Your task to perform on an android device: change alarm snooze length Image 0: 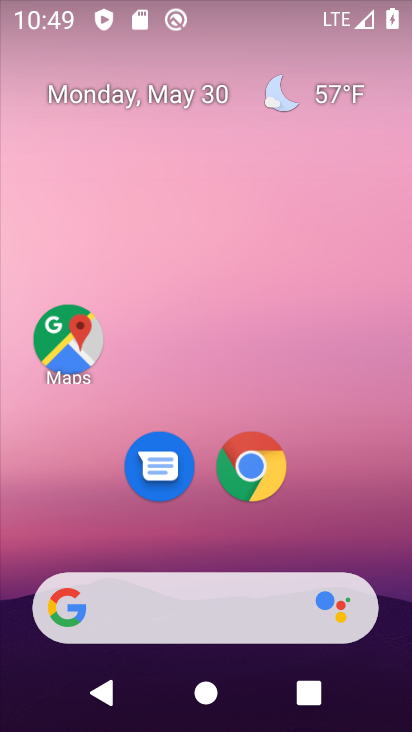
Step 0: drag from (348, 522) to (347, 10)
Your task to perform on an android device: change alarm snooze length Image 1: 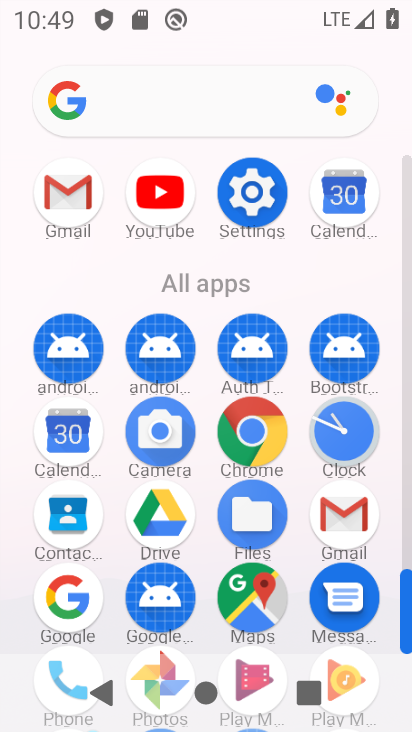
Step 1: click (350, 421)
Your task to perform on an android device: change alarm snooze length Image 2: 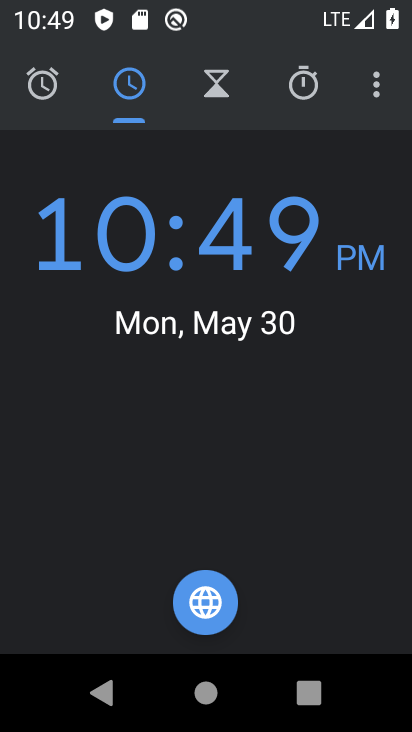
Step 2: drag from (378, 72) to (355, 114)
Your task to perform on an android device: change alarm snooze length Image 3: 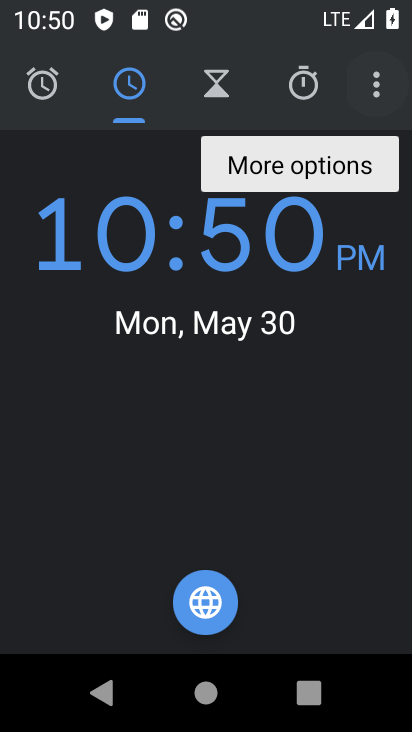
Step 3: click (368, 93)
Your task to perform on an android device: change alarm snooze length Image 4: 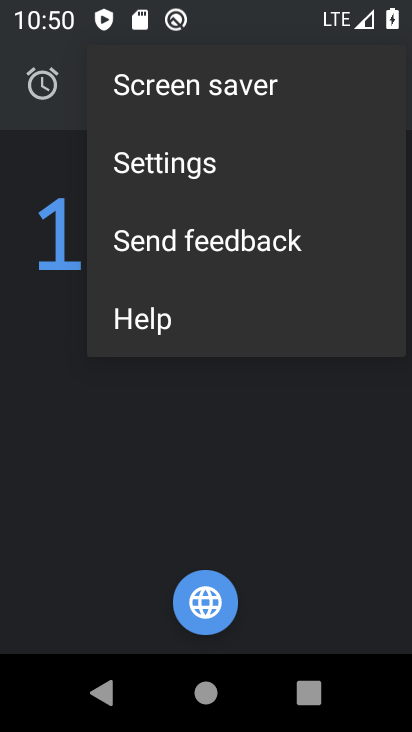
Step 4: click (204, 168)
Your task to perform on an android device: change alarm snooze length Image 5: 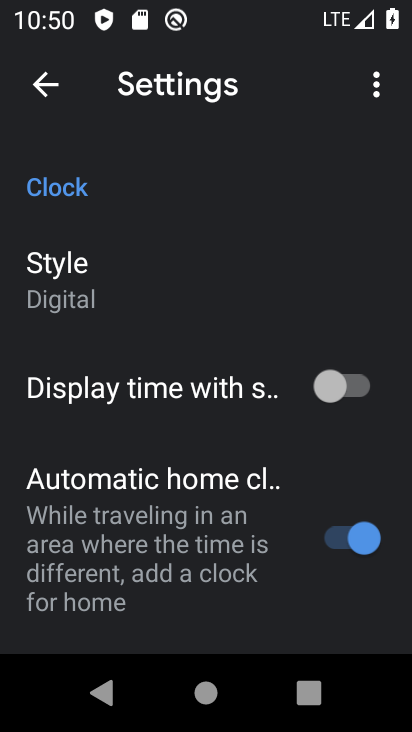
Step 5: drag from (223, 575) to (229, 104)
Your task to perform on an android device: change alarm snooze length Image 6: 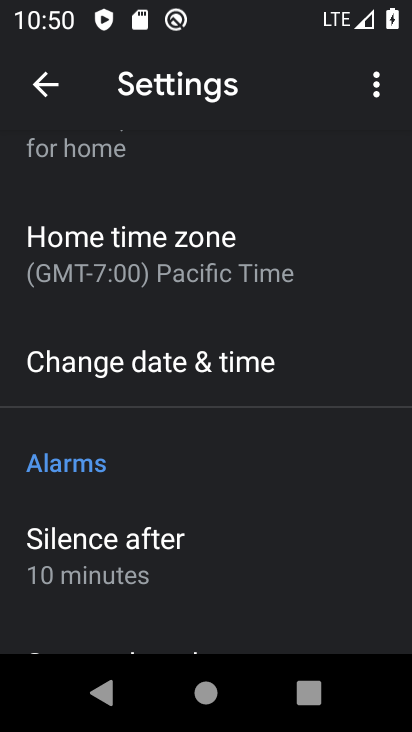
Step 6: drag from (314, 586) to (311, 207)
Your task to perform on an android device: change alarm snooze length Image 7: 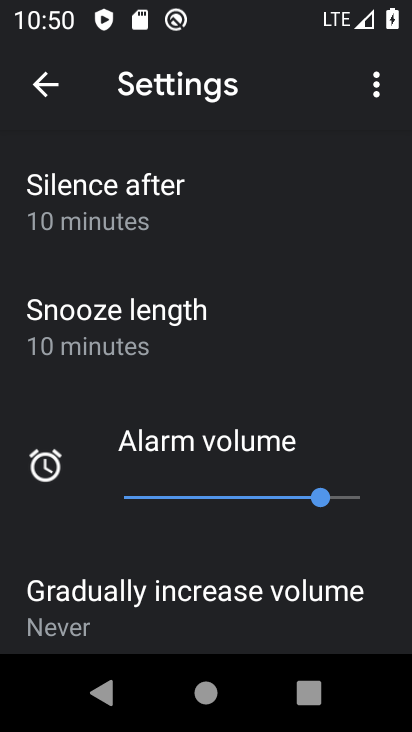
Step 7: click (179, 343)
Your task to perform on an android device: change alarm snooze length Image 8: 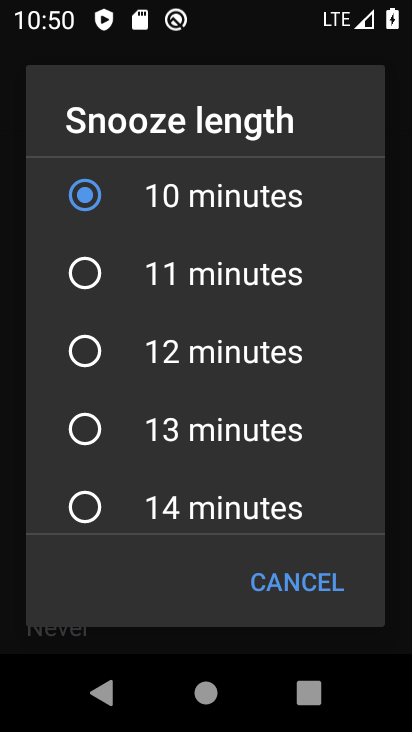
Step 8: click (79, 272)
Your task to perform on an android device: change alarm snooze length Image 9: 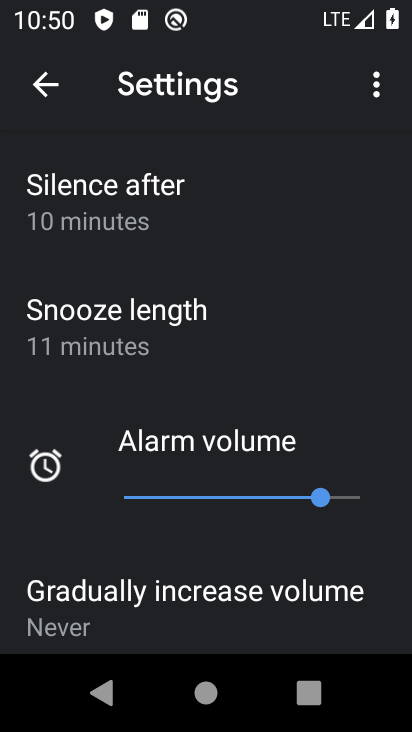
Step 9: task complete